Your task to perform on an android device: check out phone information Image 0: 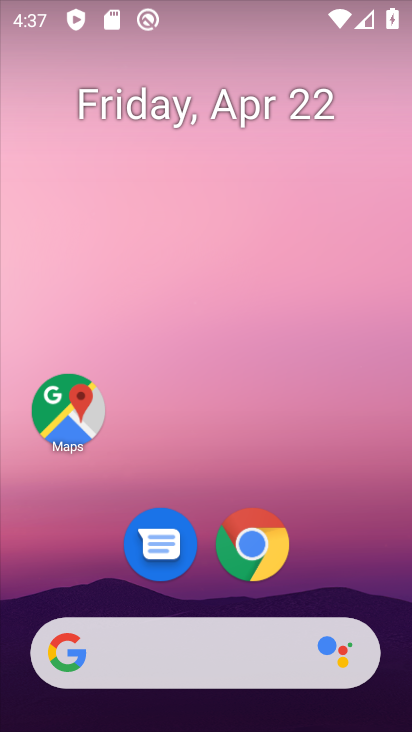
Step 0: drag from (189, 558) to (189, 108)
Your task to perform on an android device: check out phone information Image 1: 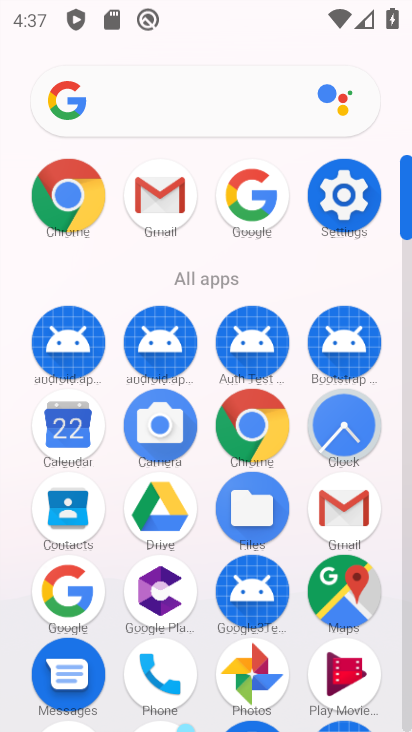
Step 1: click (163, 659)
Your task to perform on an android device: check out phone information Image 2: 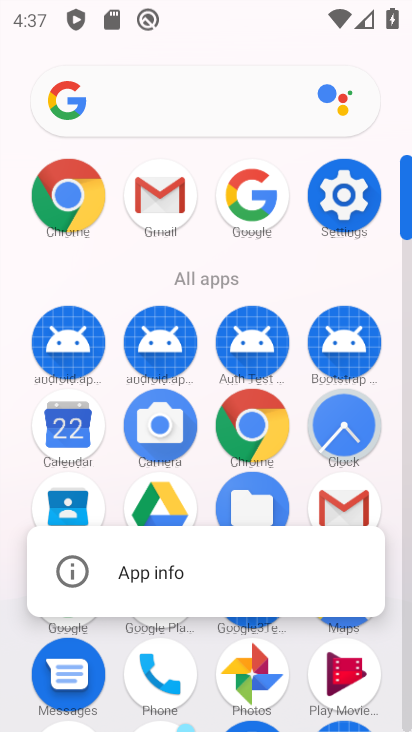
Step 2: click (163, 573)
Your task to perform on an android device: check out phone information Image 3: 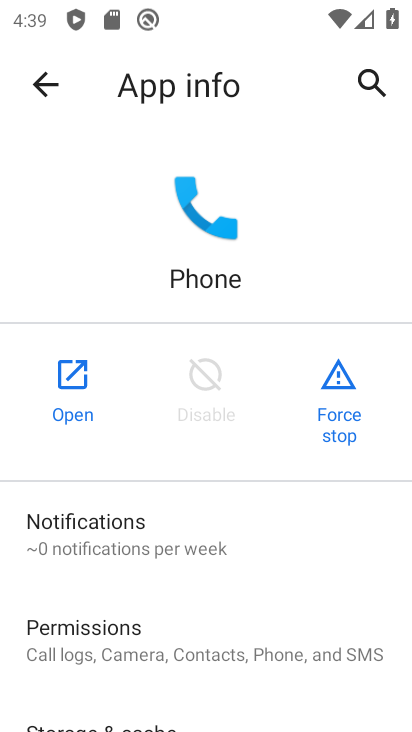
Step 3: drag from (232, 612) to (224, 272)
Your task to perform on an android device: check out phone information Image 4: 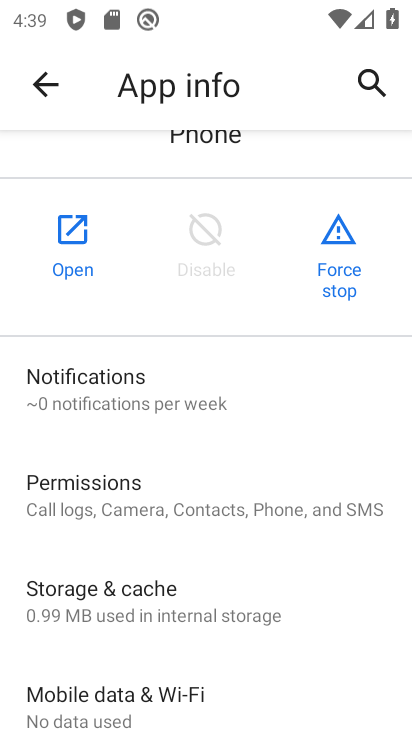
Step 4: drag from (223, 654) to (219, 275)
Your task to perform on an android device: check out phone information Image 5: 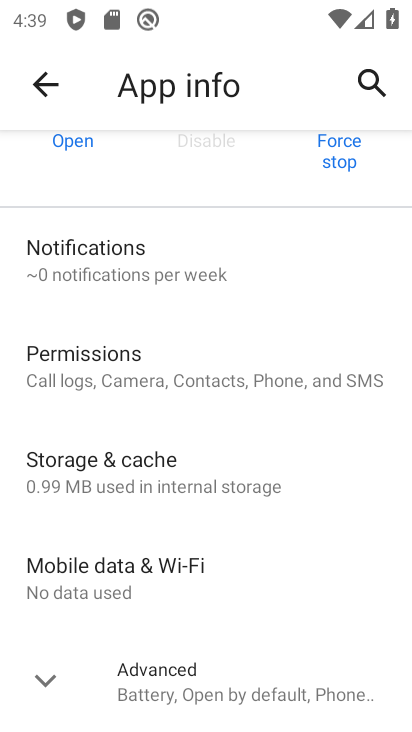
Step 5: click (196, 688)
Your task to perform on an android device: check out phone information Image 6: 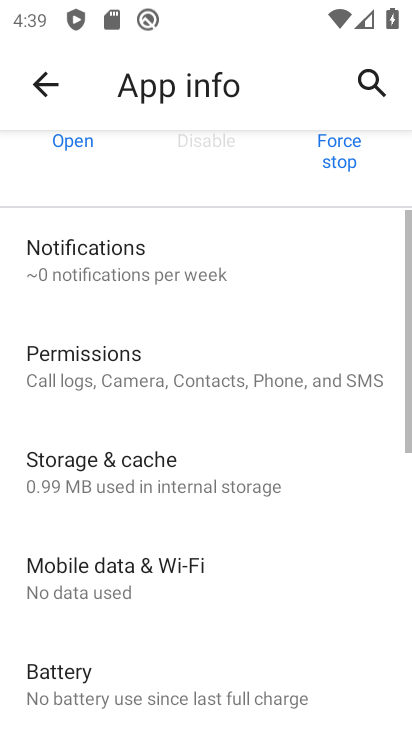
Step 6: task complete